Your task to perform on an android device: turn off wifi Image 0: 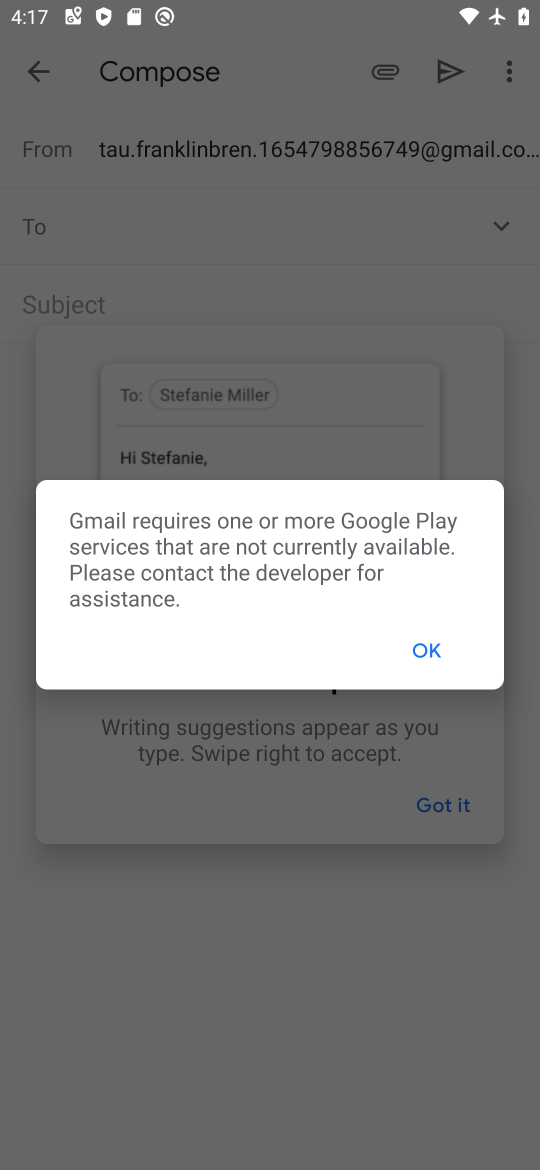
Step 0: press home button
Your task to perform on an android device: turn off wifi Image 1: 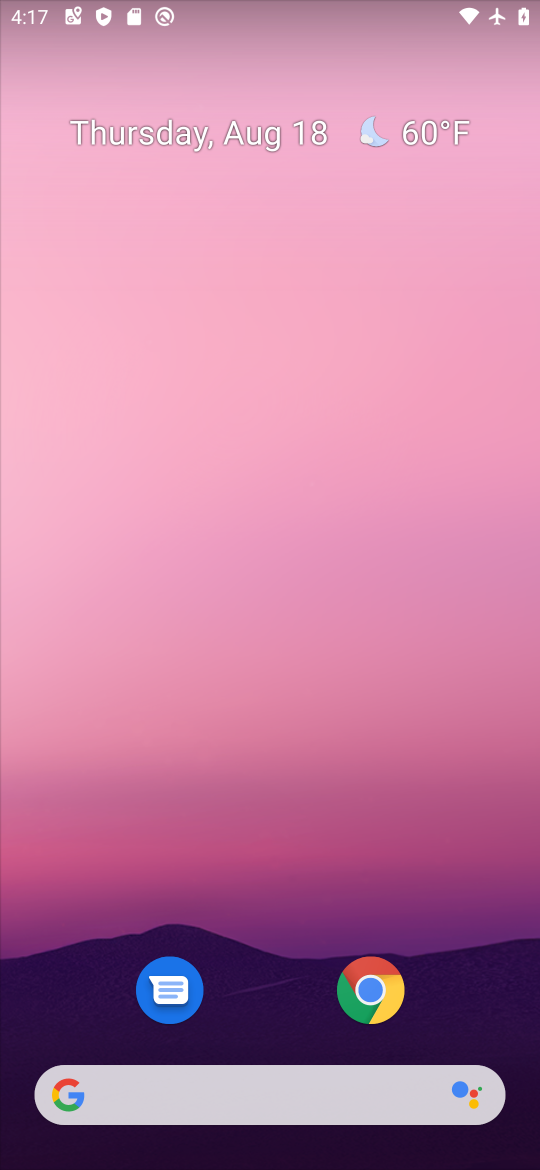
Step 1: drag from (271, 937) to (281, 36)
Your task to perform on an android device: turn off wifi Image 2: 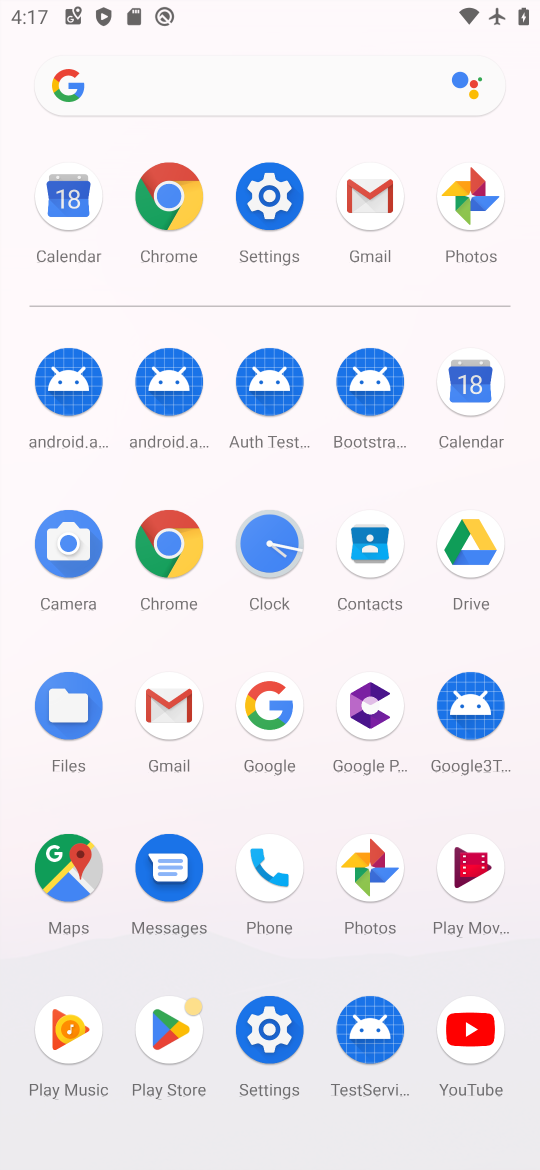
Step 2: click (252, 1037)
Your task to perform on an android device: turn off wifi Image 3: 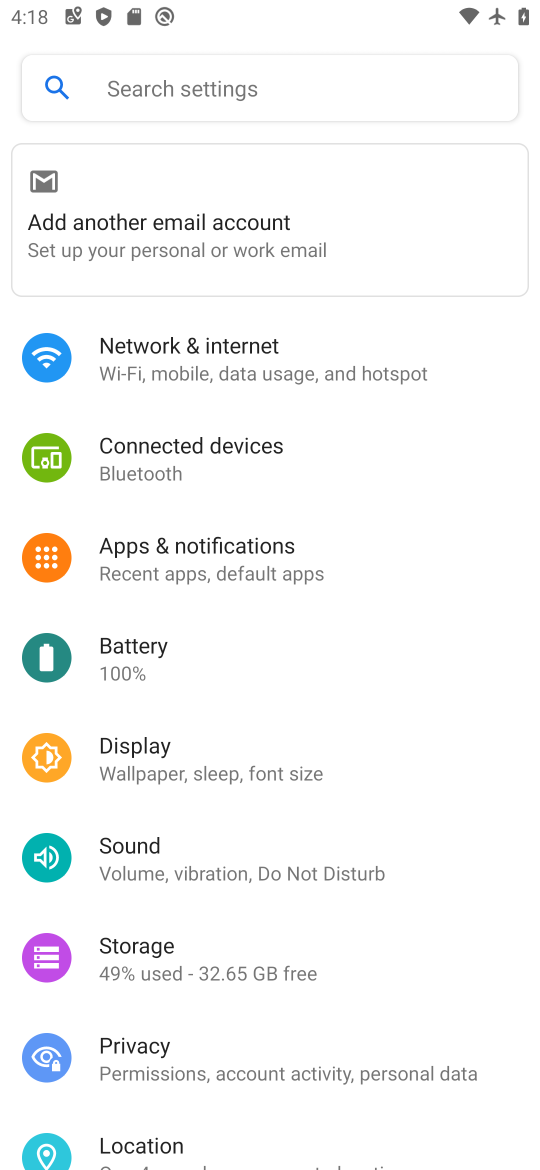
Step 3: click (219, 374)
Your task to perform on an android device: turn off wifi Image 4: 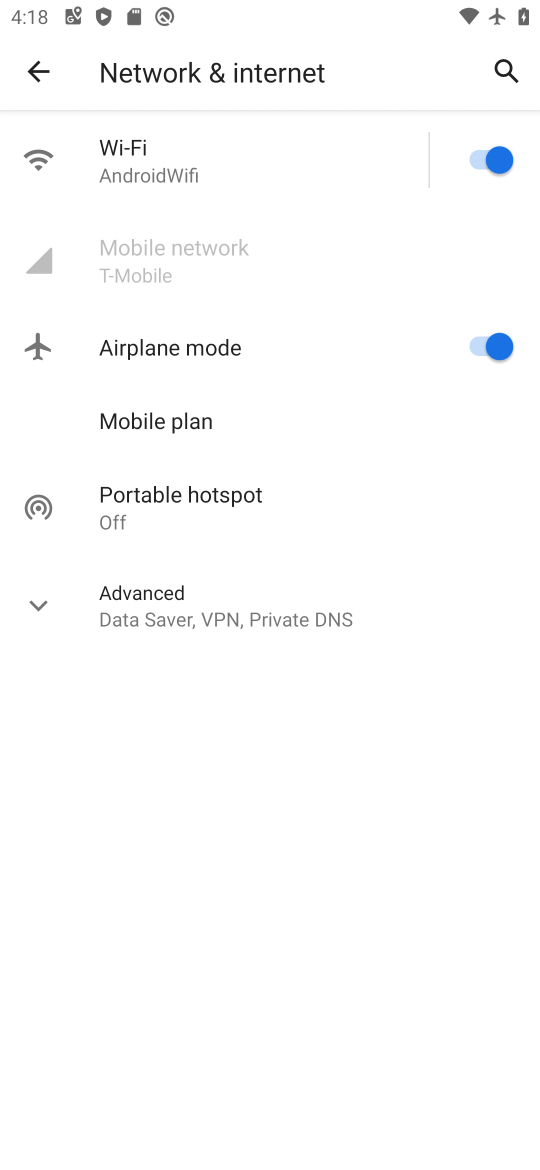
Step 4: click (501, 161)
Your task to perform on an android device: turn off wifi Image 5: 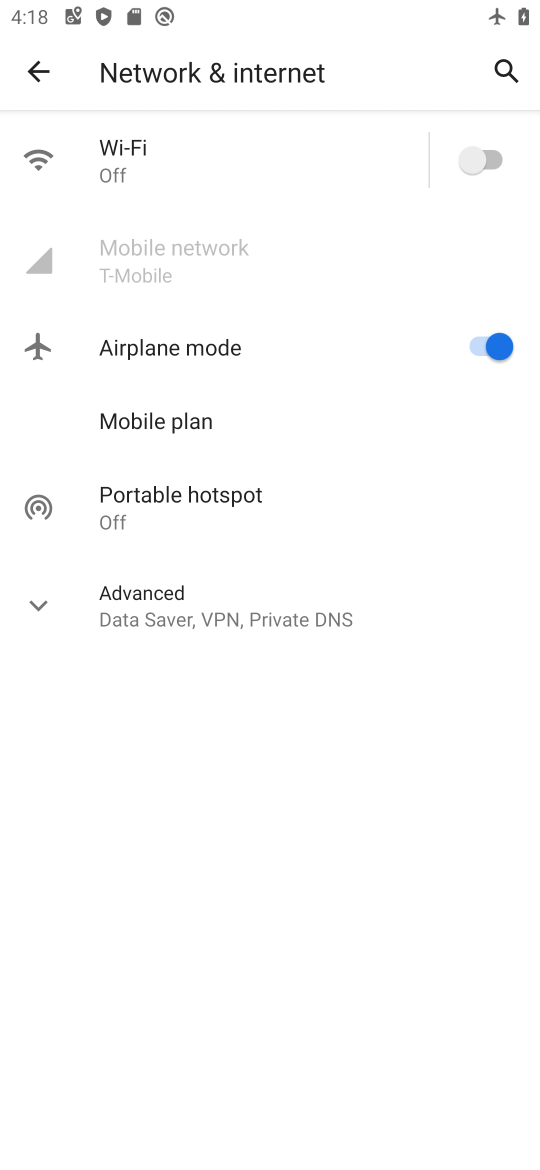
Step 5: task complete